Your task to perform on an android device: refresh tabs in the chrome app Image 0: 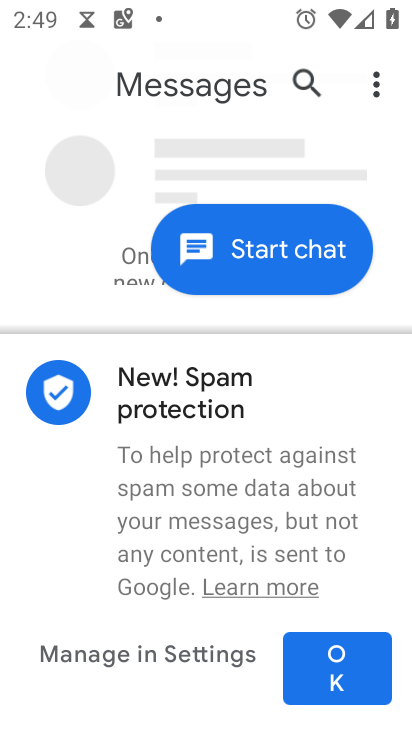
Step 0: press home button
Your task to perform on an android device: refresh tabs in the chrome app Image 1: 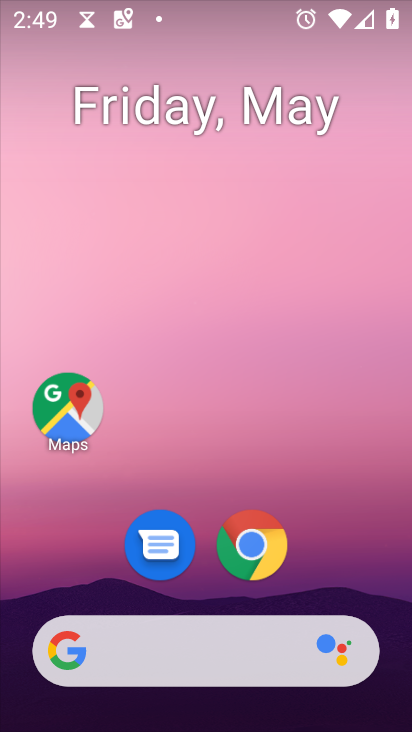
Step 1: click (278, 548)
Your task to perform on an android device: refresh tabs in the chrome app Image 2: 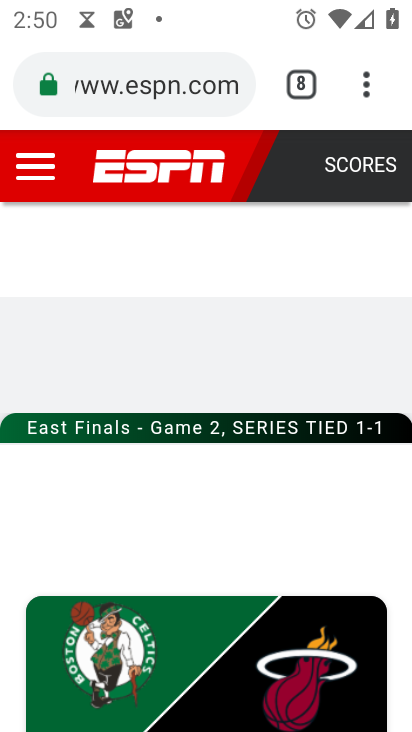
Step 2: click (378, 84)
Your task to perform on an android device: refresh tabs in the chrome app Image 3: 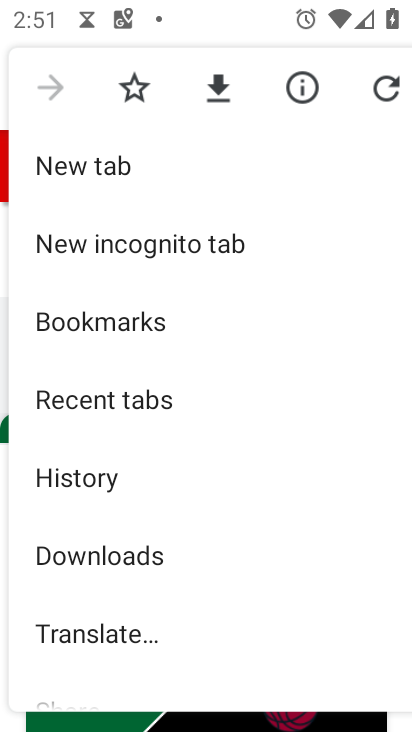
Step 3: click (379, 94)
Your task to perform on an android device: refresh tabs in the chrome app Image 4: 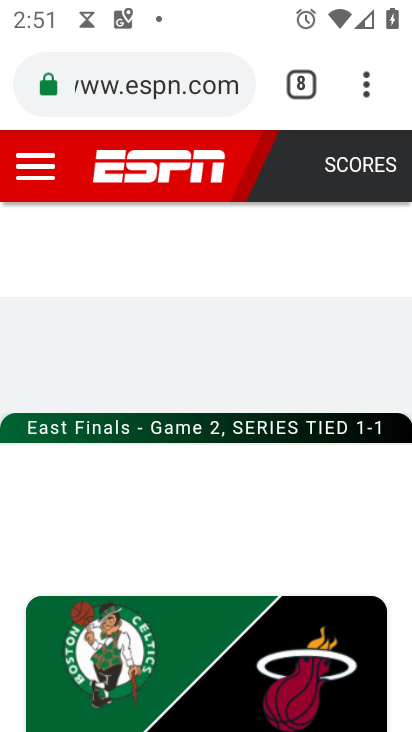
Step 4: task complete